Your task to perform on an android device: manage bookmarks in the chrome app Image 0: 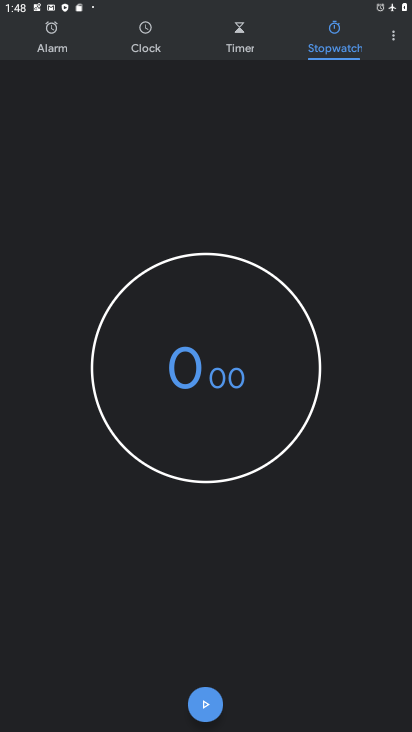
Step 0: press home button
Your task to perform on an android device: manage bookmarks in the chrome app Image 1: 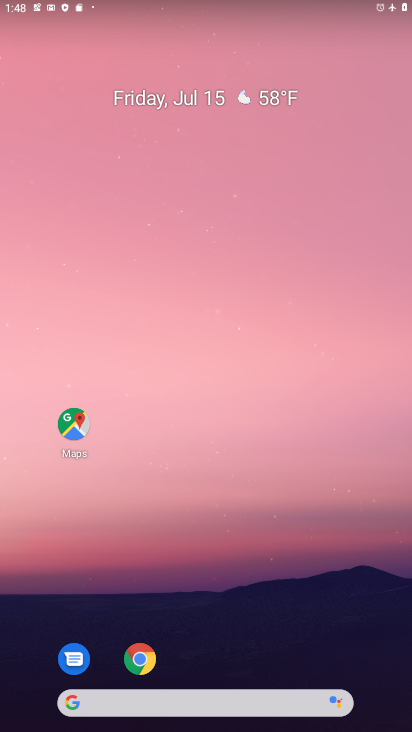
Step 1: click (133, 662)
Your task to perform on an android device: manage bookmarks in the chrome app Image 2: 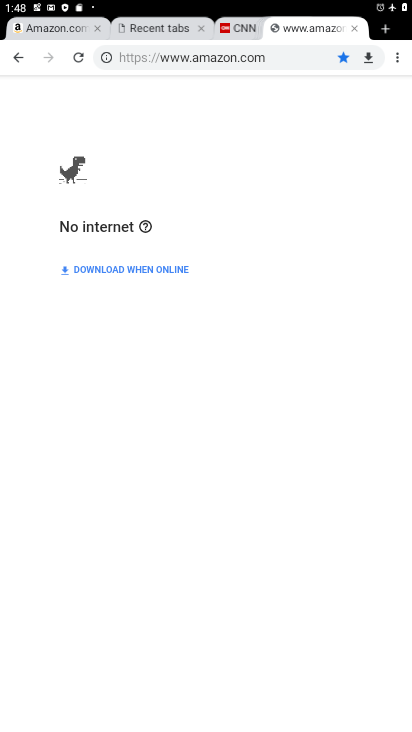
Step 2: click (395, 58)
Your task to perform on an android device: manage bookmarks in the chrome app Image 3: 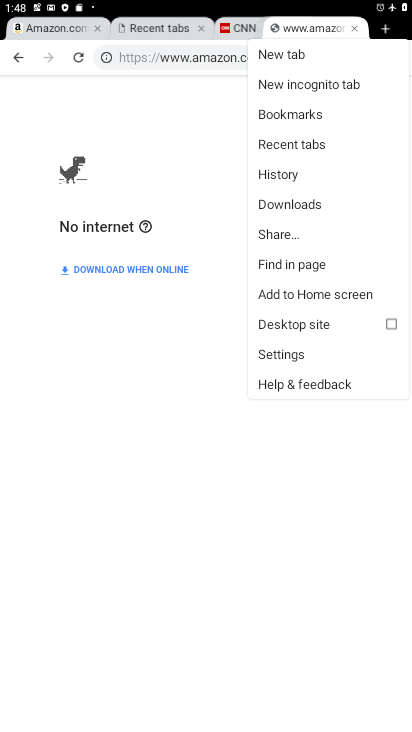
Step 3: click (296, 116)
Your task to perform on an android device: manage bookmarks in the chrome app Image 4: 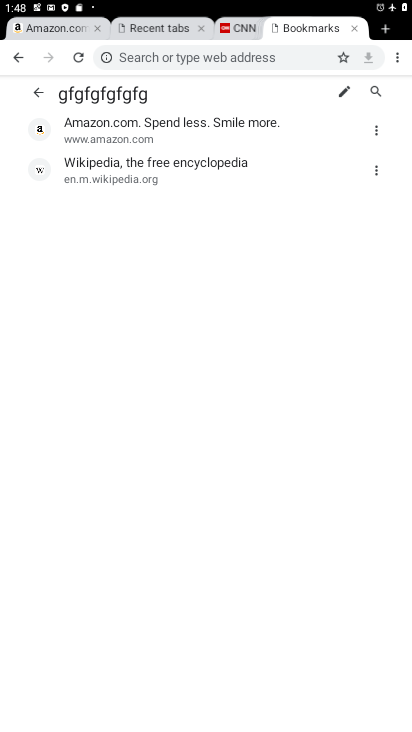
Step 4: click (378, 128)
Your task to perform on an android device: manage bookmarks in the chrome app Image 5: 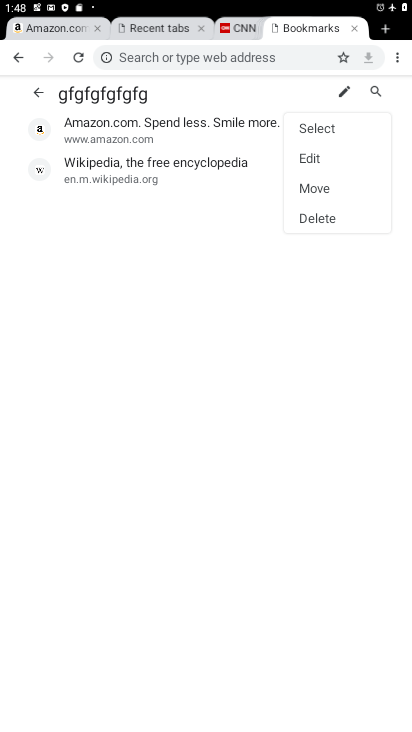
Step 5: click (314, 156)
Your task to perform on an android device: manage bookmarks in the chrome app Image 6: 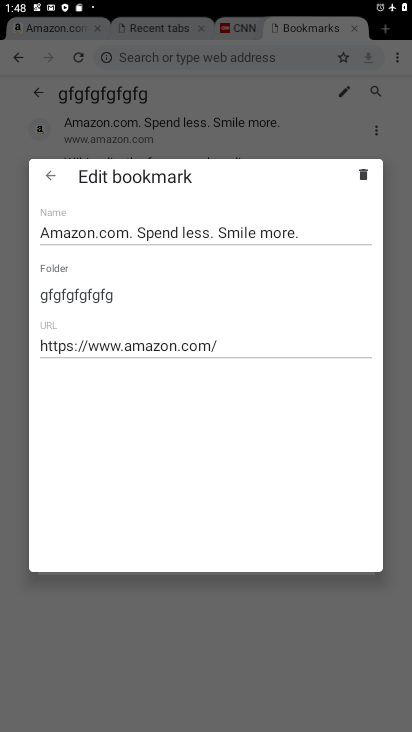
Step 6: click (164, 230)
Your task to perform on an android device: manage bookmarks in the chrome app Image 7: 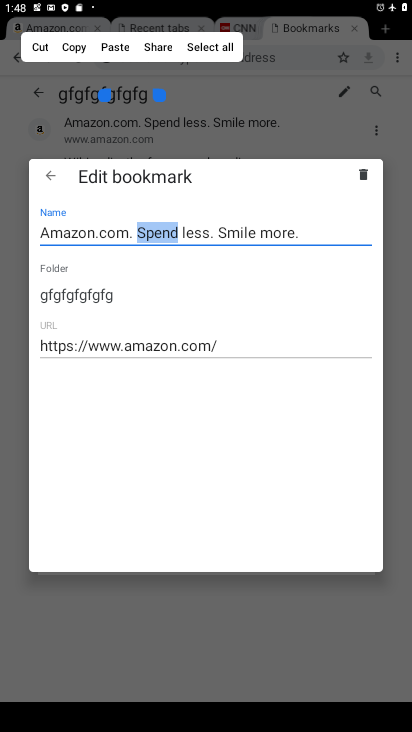
Step 7: click (42, 42)
Your task to perform on an android device: manage bookmarks in the chrome app Image 8: 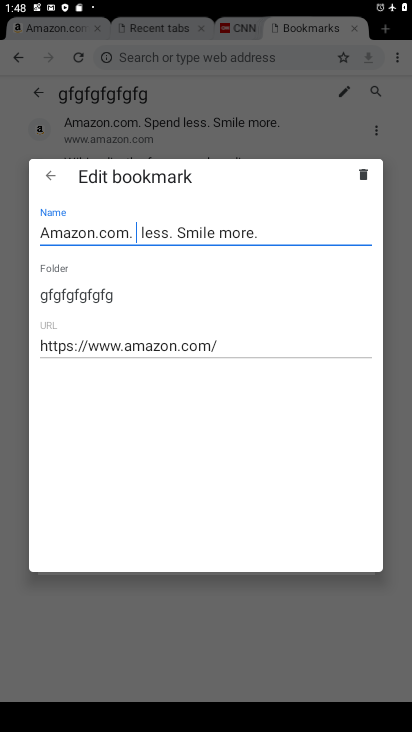
Step 8: type "born"
Your task to perform on an android device: manage bookmarks in the chrome app Image 9: 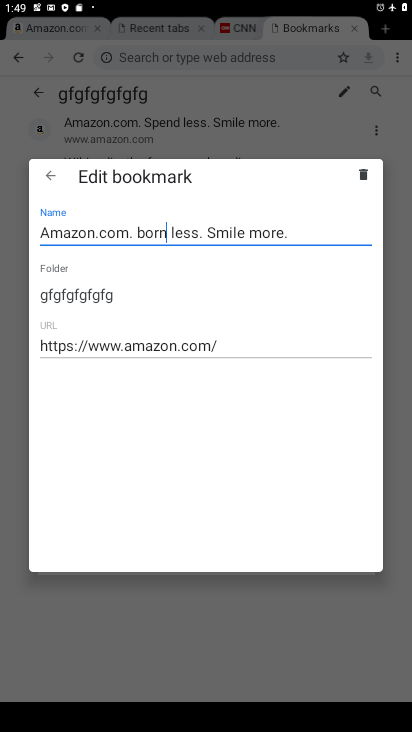
Step 9: click (135, 428)
Your task to perform on an android device: manage bookmarks in the chrome app Image 10: 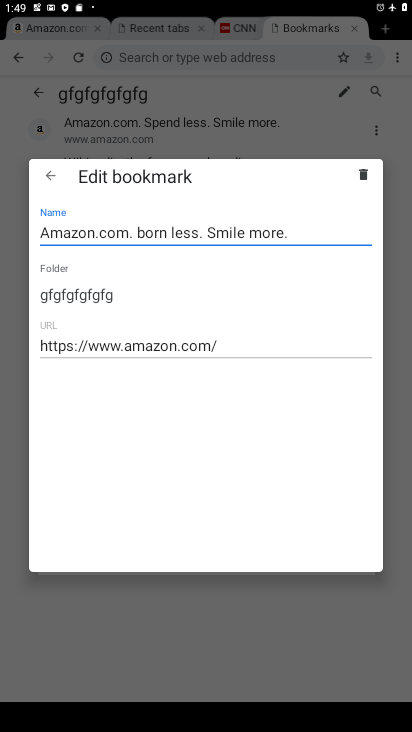
Step 10: click (15, 188)
Your task to perform on an android device: manage bookmarks in the chrome app Image 11: 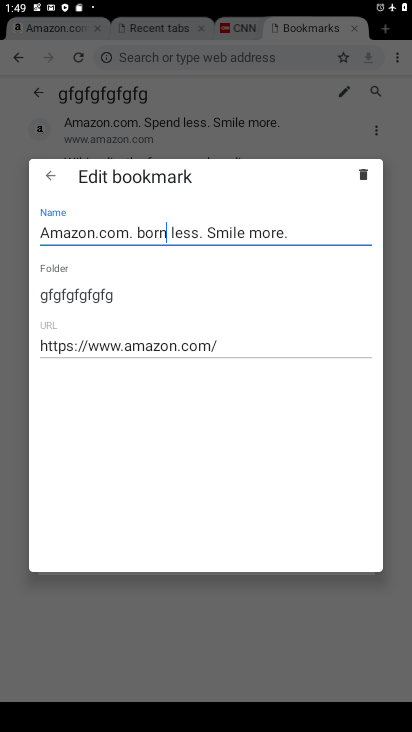
Step 11: click (213, 636)
Your task to perform on an android device: manage bookmarks in the chrome app Image 12: 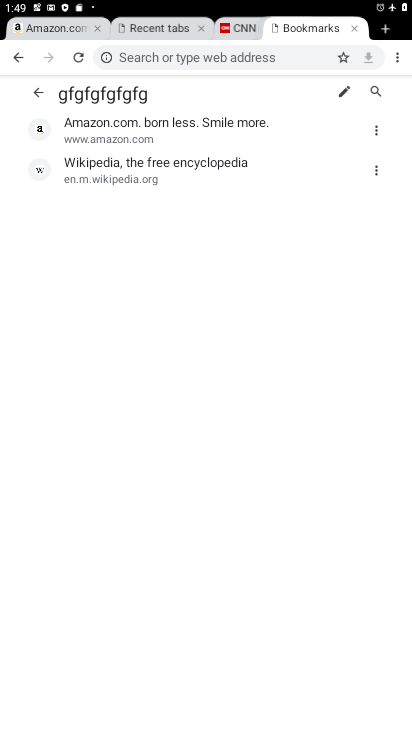
Step 12: task complete